Your task to perform on an android device: create a new album in the google photos Image 0: 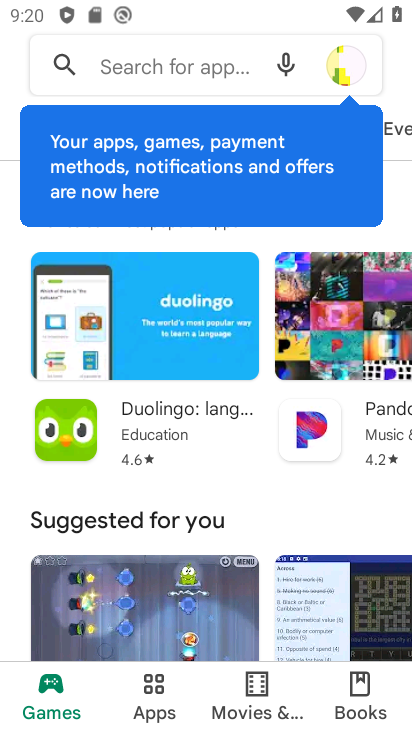
Step 0: press home button
Your task to perform on an android device: create a new album in the google photos Image 1: 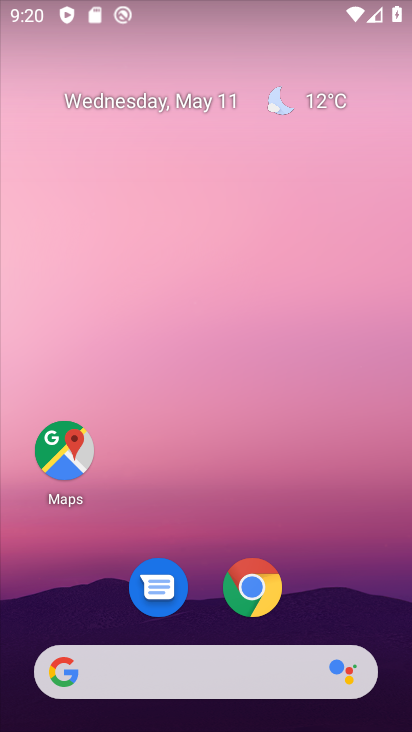
Step 1: drag from (334, 566) to (361, 0)
Your task to perform on an android device: create a new album in the google photos Image 2: 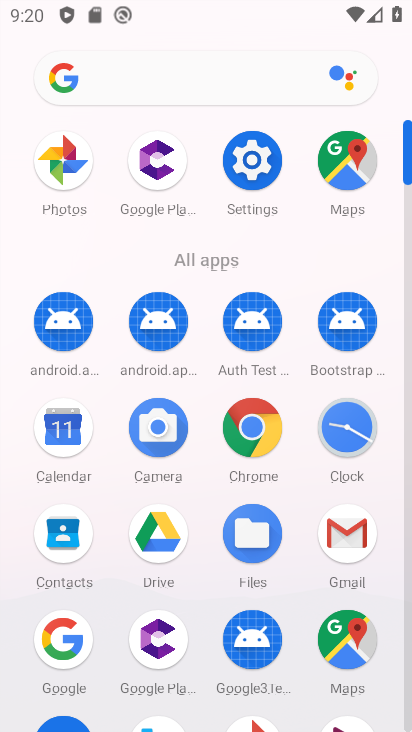
Step 2: click (63, 166)
Your task to perform on an android device: create a new album in the google photos Image 3: 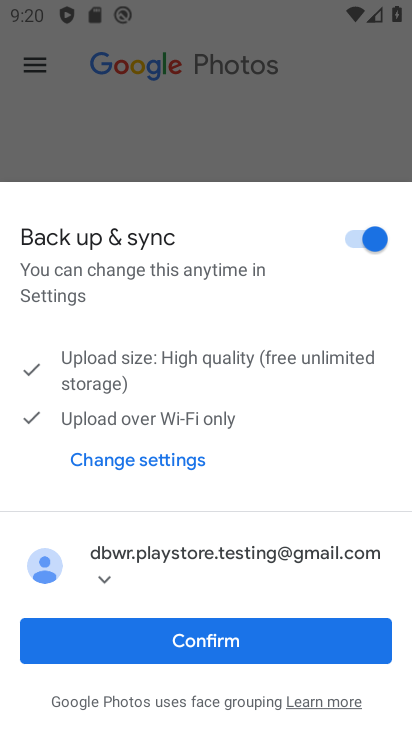
Step 3: click (214, 644)
Your task to perform on an android device: create a new album in the google photos Image 4: 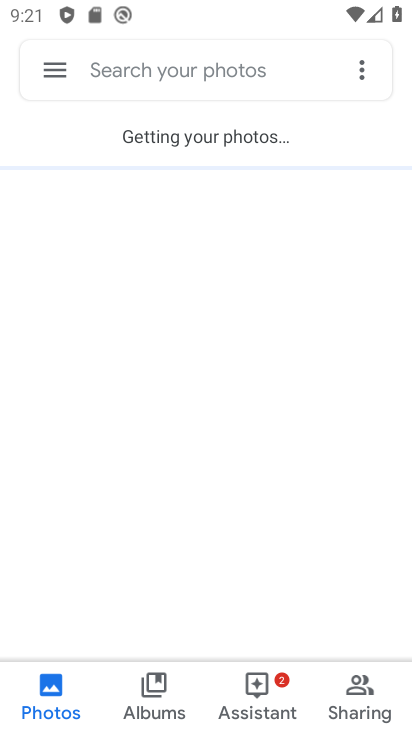
Step 4: drag from (149, 211) to (180, 463)
Your task to perform on an android device: create a new album in the google photos Image 5: 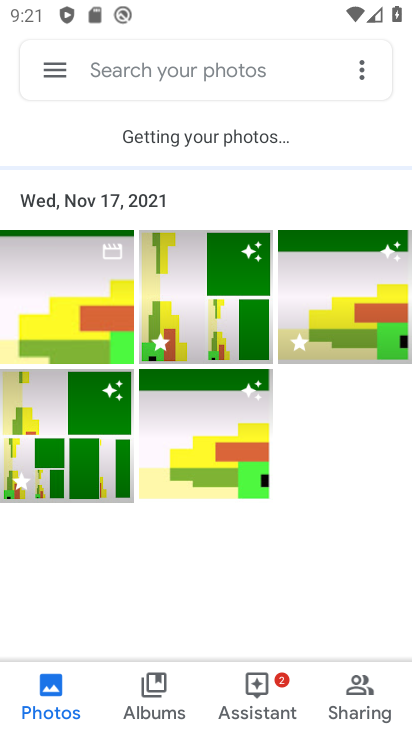
Step 5: click (110, 301)
Your task to perform on an android device: create a new album in the google photos Image 6: 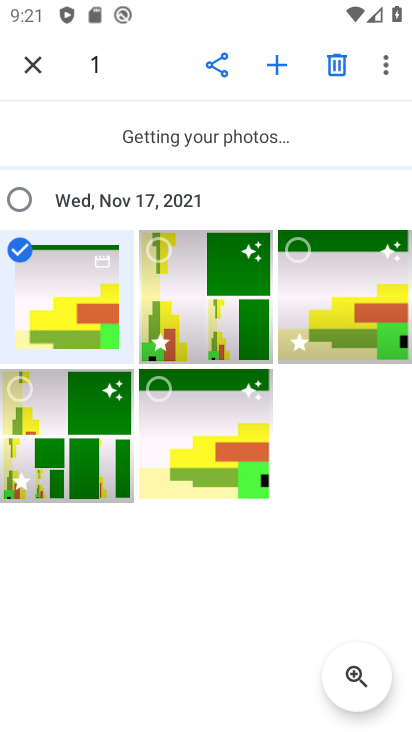
Step 6: click (110, 301)
Your task to perform on an android device: create a new album in the google photos Image 7: 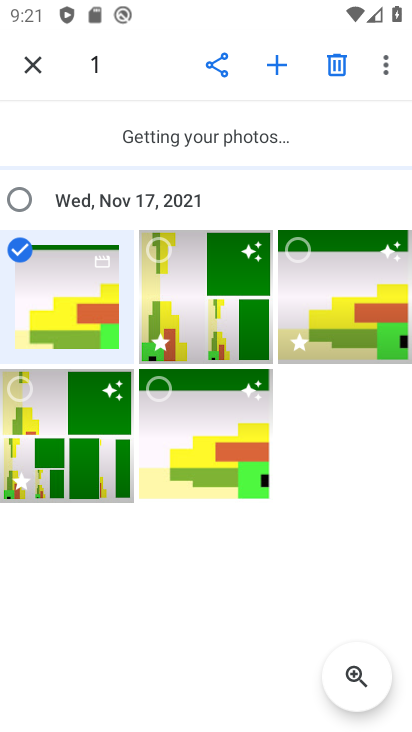
Step 7: click (192, 298)
Your task to perform on an android device: create a new album in the google photos Image 8: 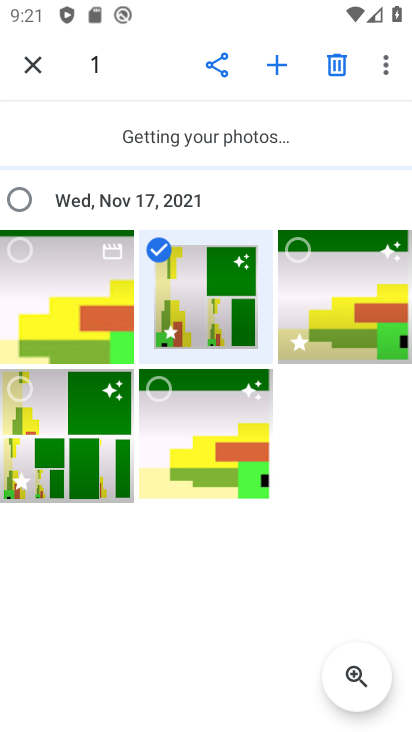
Step 8: click (278, 70)
Your task to perform on an android device: create a new album in the google photos Image 9: 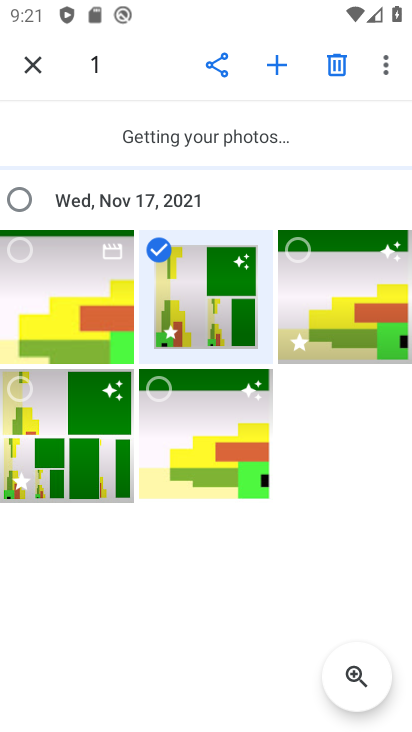
Step 9: click (277, 58)
Your task to perform on an android device: create a new album in the google photos Image 10: 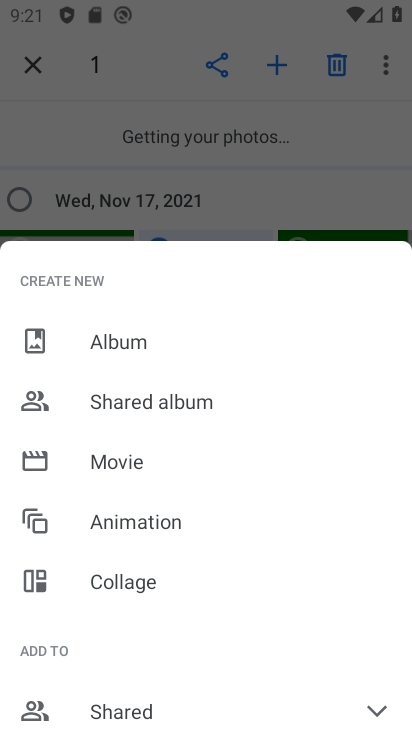
Step 10: click (113, 335)
Your task to perform on an android device: create a new album in the google photos Image 11: 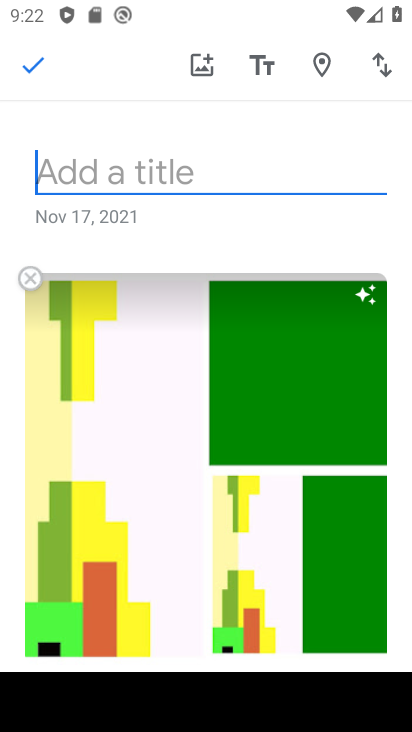
Step 11: click (88, 171)
Your task to perform on an android device: create a new album in the google photos Image 12: 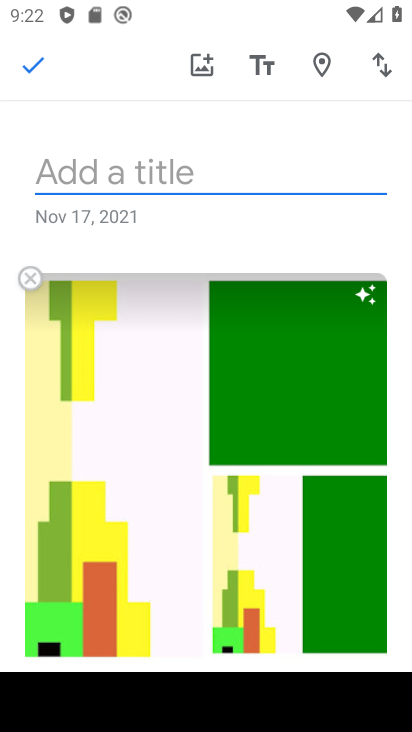
Step 12: type "new 1"
Your task to perform on an android device: create a new album in the google photos Image 13: 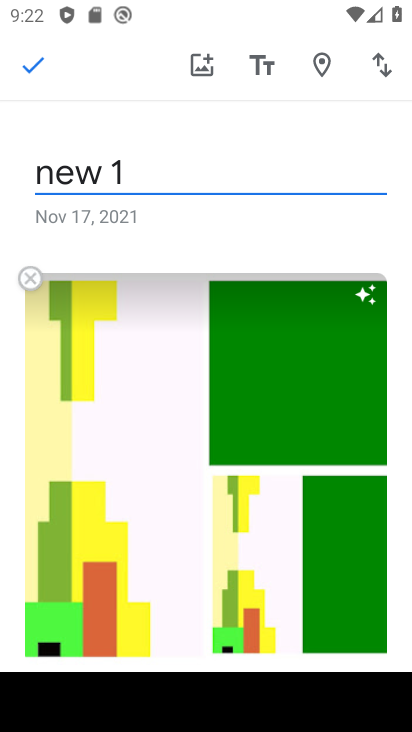
Step 13: click (19, 70)
Your task to perform on an android device: create a new album in the google photos Image 14: 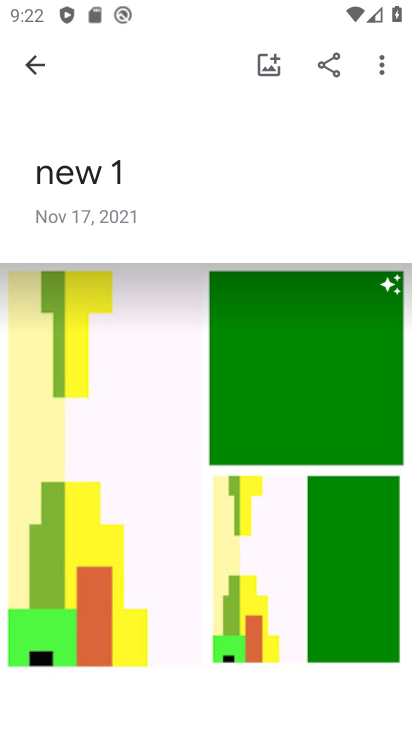
Step 14: task complete